Your task to perform on an android device: choose inbox layout in the gmail app Image 0: 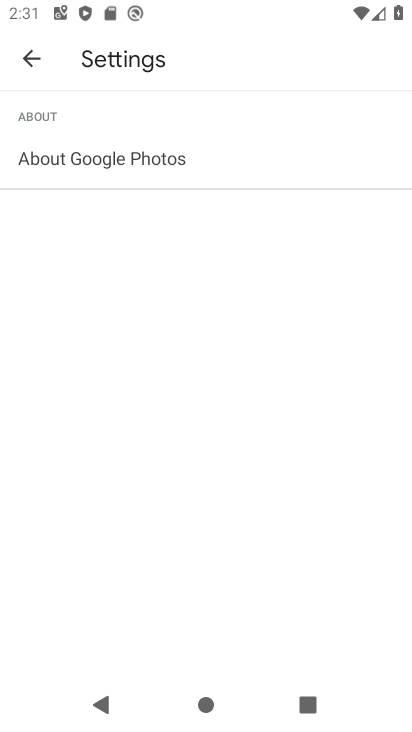
Step 0: press home button
Your task to perform on an android device: choose inbox layout in the gmail app Image 1: 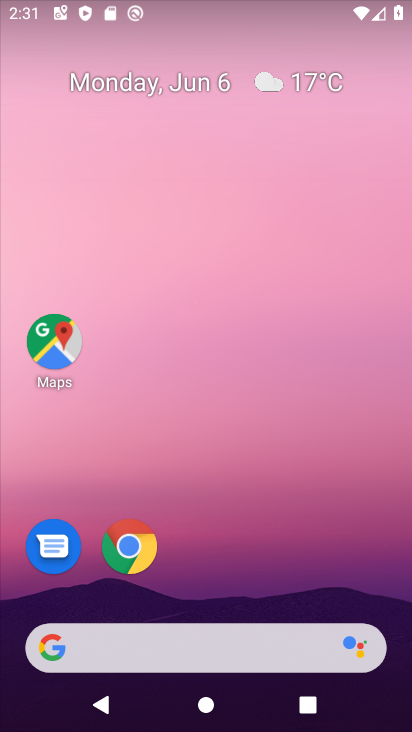
Step 1: drag from (235, 612) to (171, 201)
Your task to perform on an android device: choose inbox layout in the gmail app Image 2: 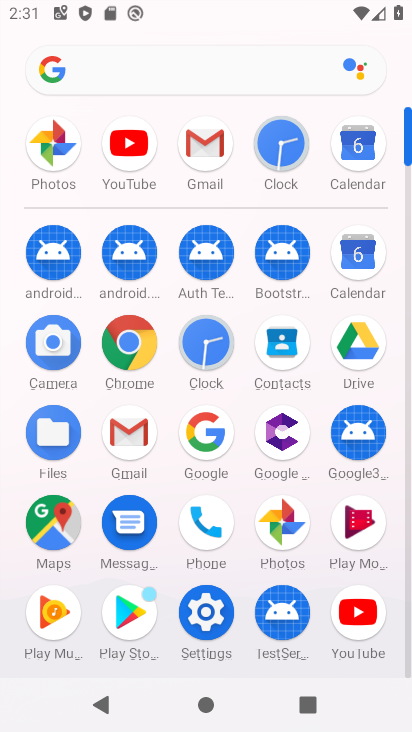
Step 2: click (201, 171)
Your task to perform on an android device: choose inbox layout in the gmail app Image 3: 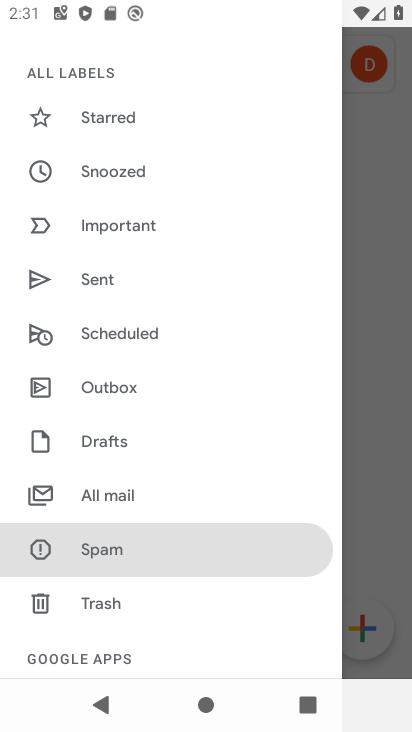
Step 3: click (120, 501)
Your task to perform on an android device: choose inbox layout in the gmail app Image 4: 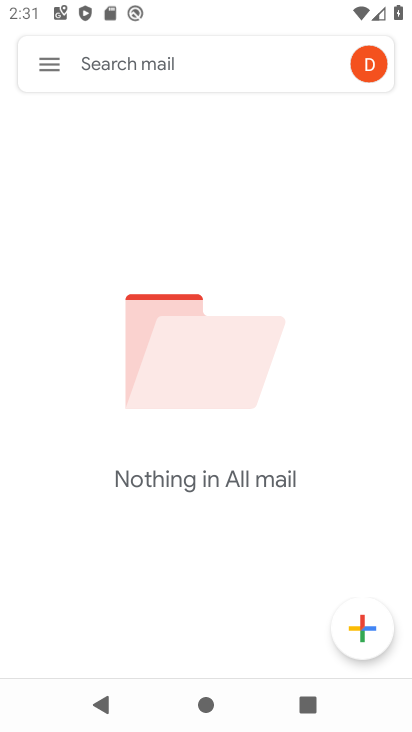
Step 4: task complete